Your task to perform on an android device: set default search engine in the chrome app Image 0: 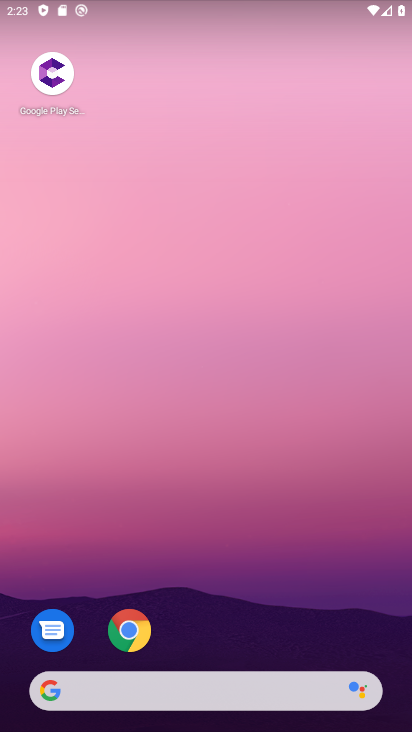
Step 0: drag from (263, 615) to (197, 188)
Your task to perform on an android device: set default search engine in the chrome app Image 1: 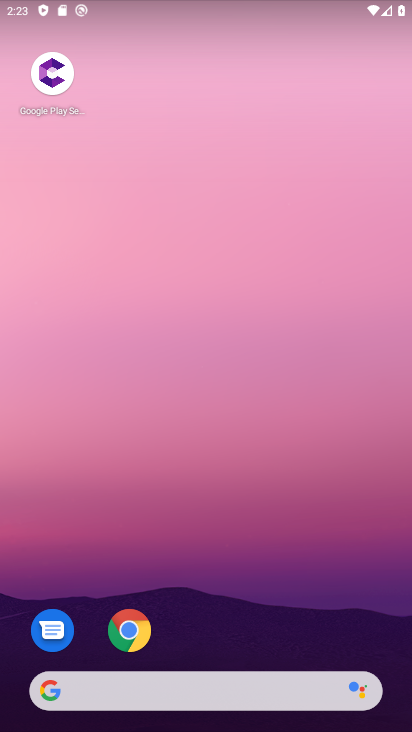
Step 1: drag from (217, 504) to (173, 144)
Your task to perform on an android device: set default search engine in the chrome app Image 2: 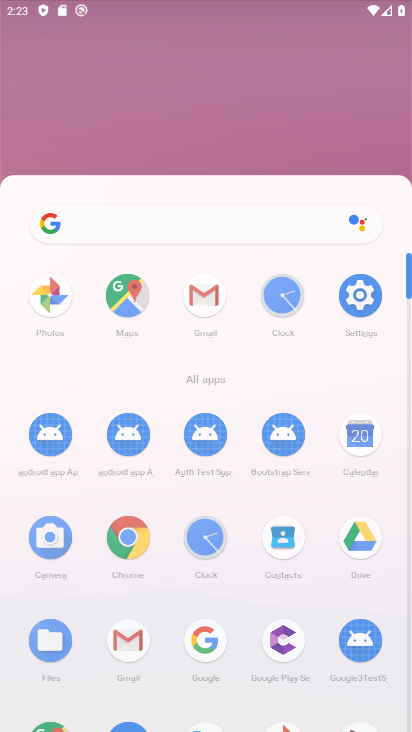
Step 2: drag from (231, 372) to (184, 111)
Your task to perform on an android device: set default search engine in the chrome app Image 3: 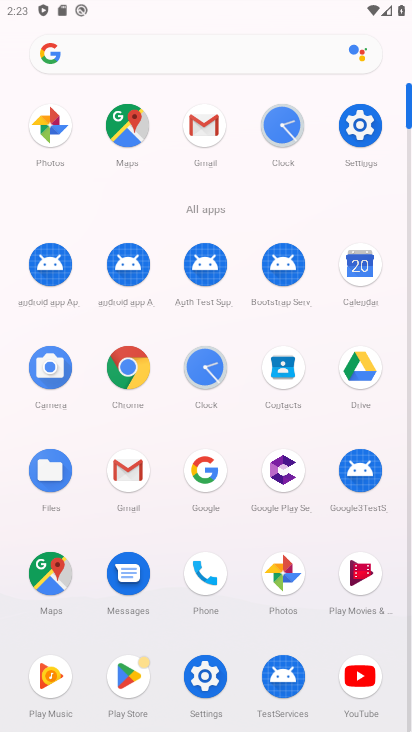
Step 3: drag from (219, 367) to (167, 121)
Your task to perform on an android device: set default search engine in the chrome app Image 4: 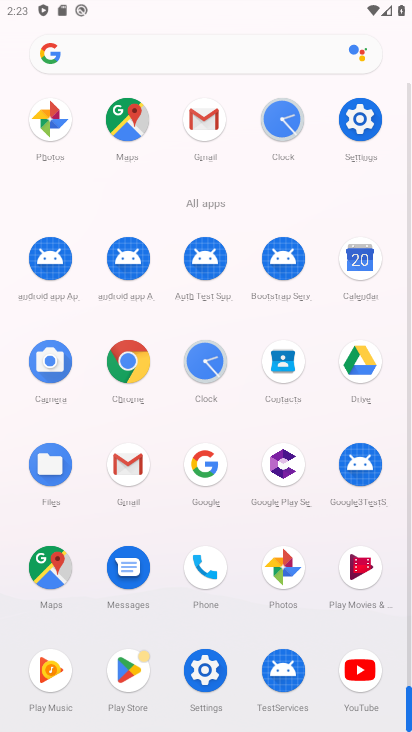
Step 4: click (129, 366)
Your task to perform on an android device: set default search engine in the chrome app Image 5: 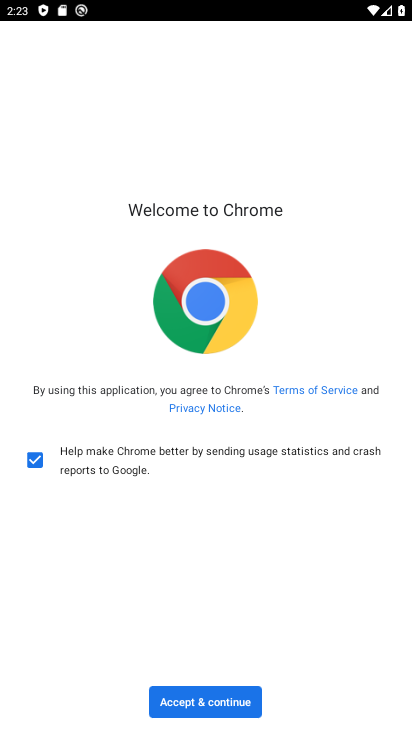
Step 5: click (211, 701)
Your task to perform on an android device: set default search engine in the chrome app Image 6: 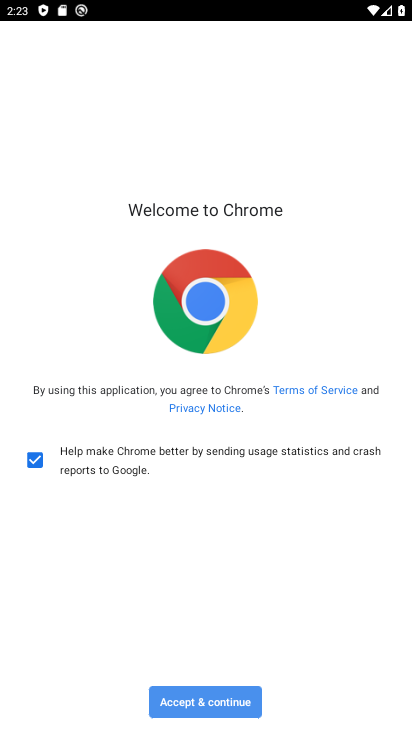
Step 6: click (210, 702)
Your task to perform on an android device: set default search engine in the chrome app Image 7: 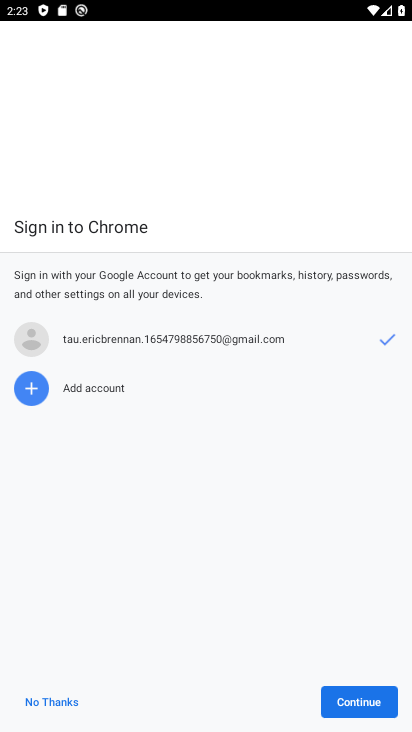
Step 7: click (210, 702)
Your task to perform on an android device: set default search engine in the chrome app Image 8: 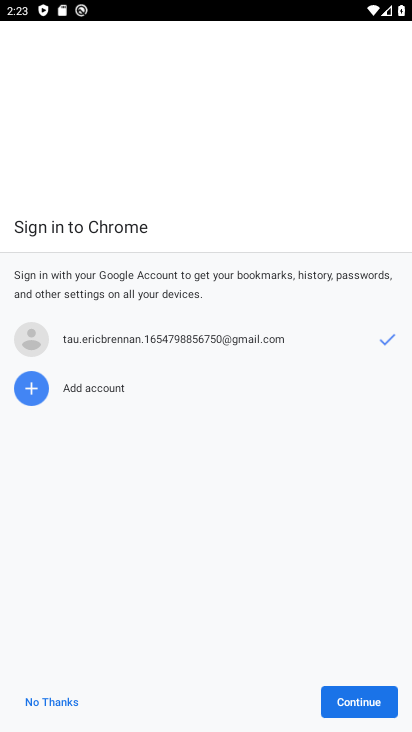
Step 8: click (210, 702)
Your task to perform on an android device: set default search engine in the chrome app Image 9: 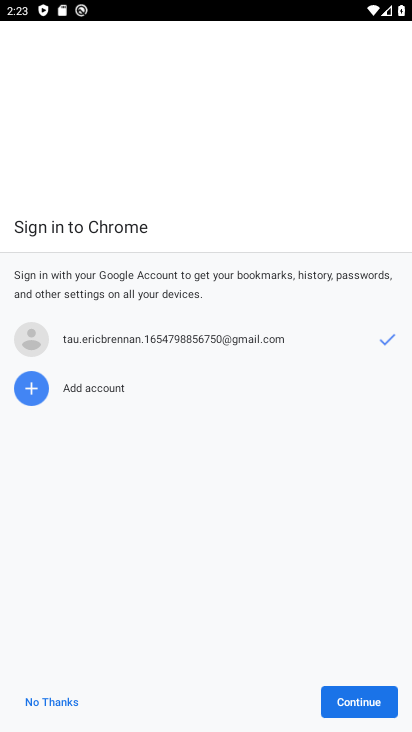
Step 9: click (354, 698)
Your task to perform on an android device: set default search engine in the chrome app Image 10: 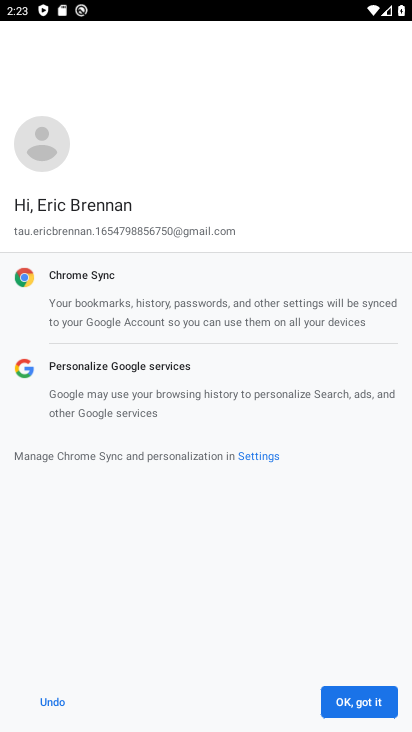
Step 10: click (69, 703)
Your task to perform on an android device: set default search engine in the chrome app Image 11: 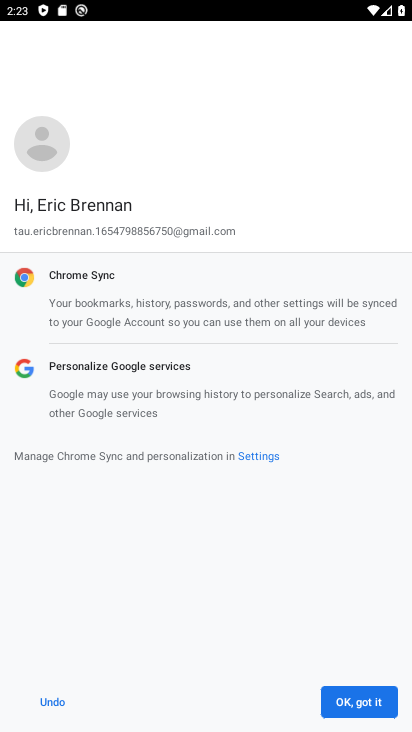
Step 11: click (69, 703)
Your task to perform on an android device: set default search engine in the chrome app Image 12: 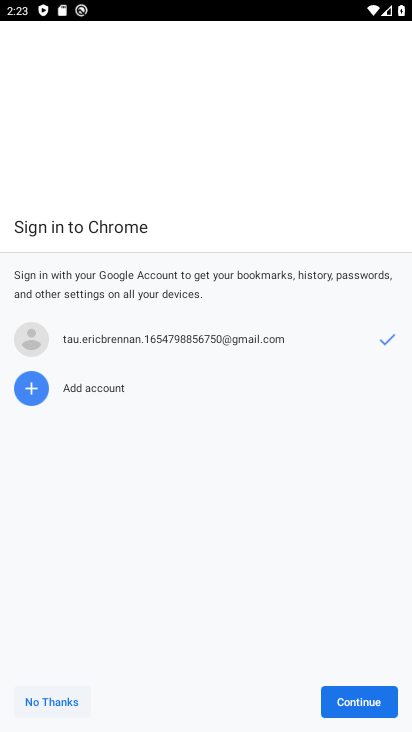
Step 12: click (58, 701)
Your task to perform on an android device: set default search engine in the chrome app Image 13: 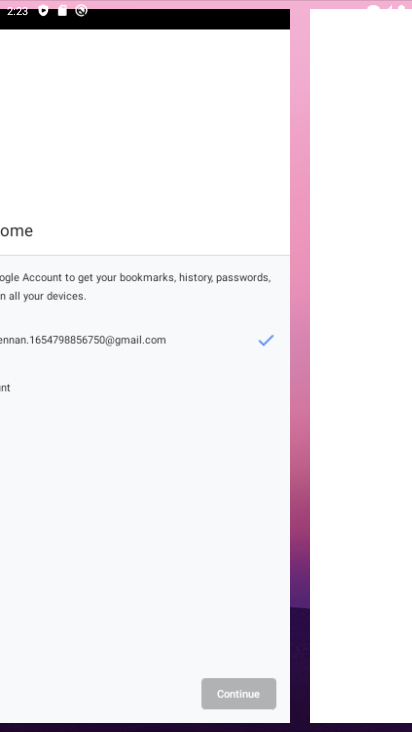
Step 13: click (58, 701)
Your task to perform on an android device: set default search engine in the chrome app Image 14: 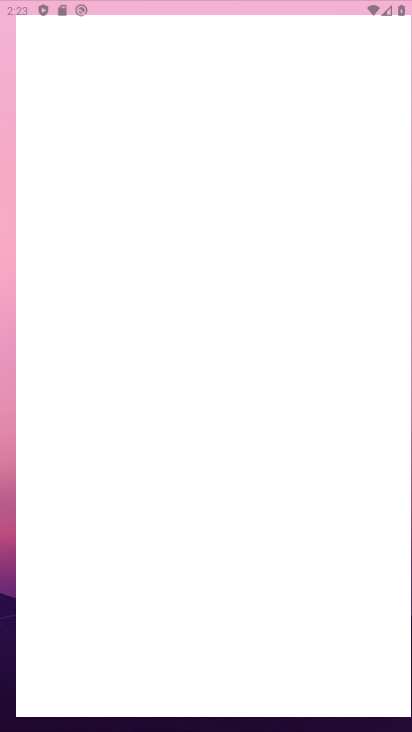
Step 14: click (58, 701)
Your task to perform on an android device: set default search engine in the chrome app Image 15: 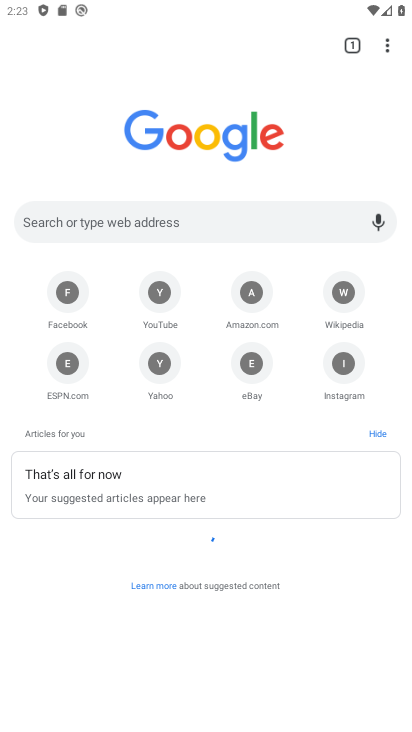
Step 15: drag from (385, 50) to (217, 378)
Your task to perform on an android device: set default search engine in the chrome app Image 16: 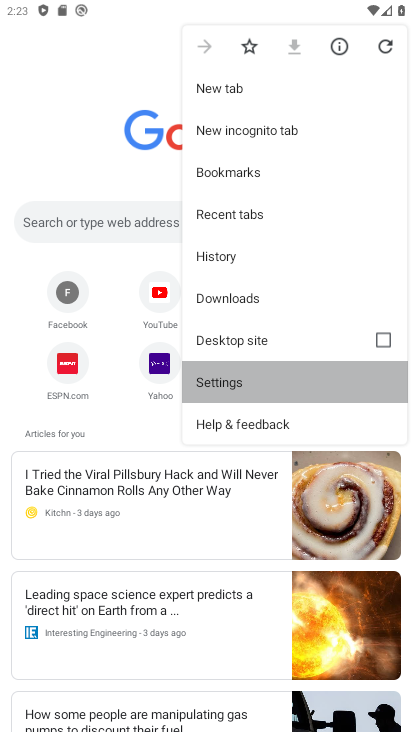
Step 16: click (217, 378)
Your task to perform on an android device: set default search engine in the chrome app Image 17: 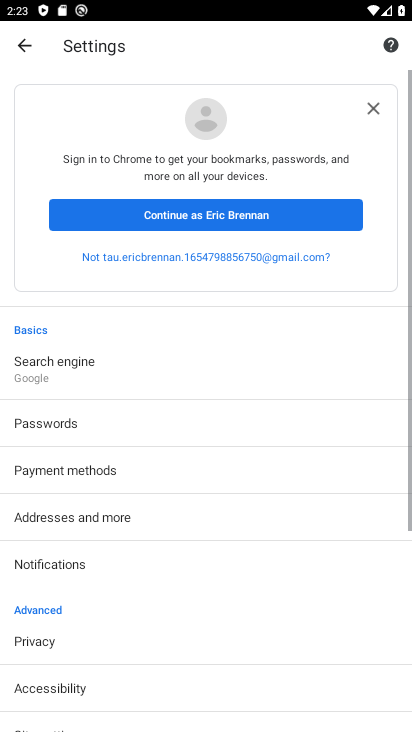
Step 17: click (54, 338)
Your task to perform on an android device: set default search engine in the chrome app Image 18: 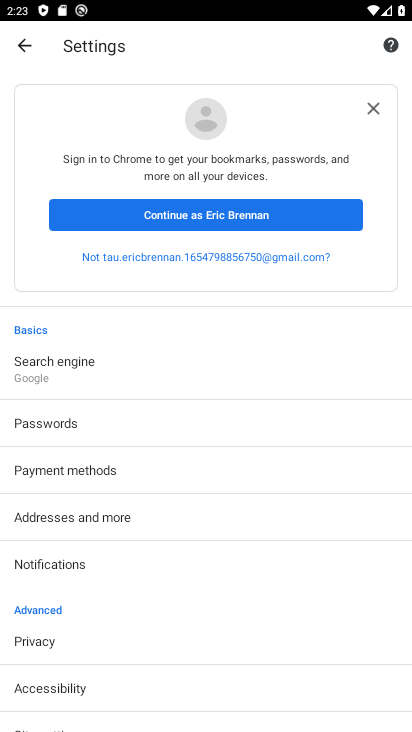
Step 18: click (44, 365)
Your task to perform on an android device: set default search engine in the chrome app Image 19: 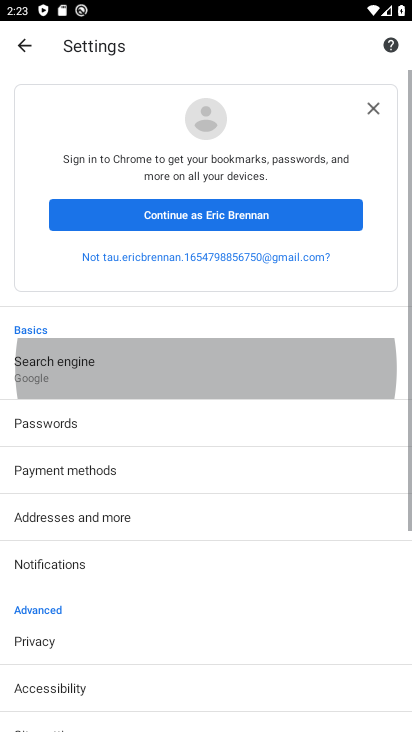
Step 19: click (46, 365)
Your task to perform on an android device: set default search engine in the chrome app Image 20: 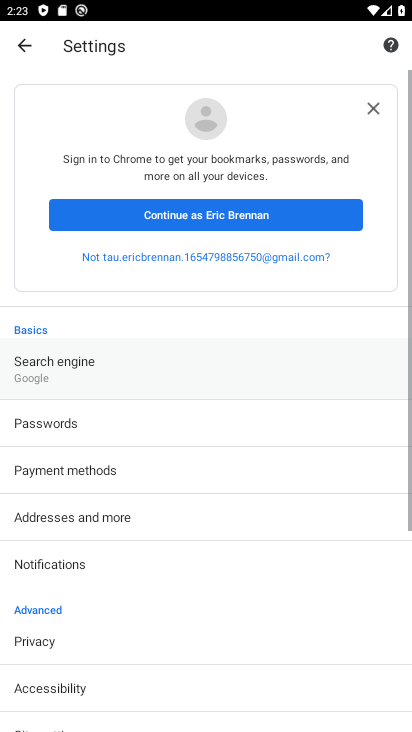
Step 20: click (50, 368)
Your task to perform on an android device: set default search engine in the chrome app Image 21: 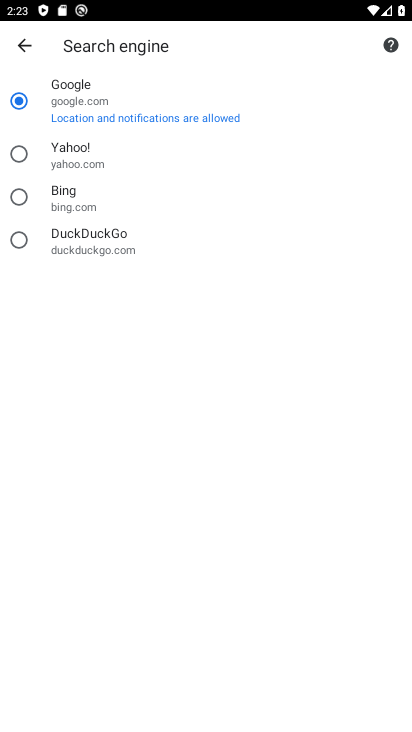
Step 21: click (20, 149)
Your task to perform on an android device: set default search engine in the chrome app Image 22: 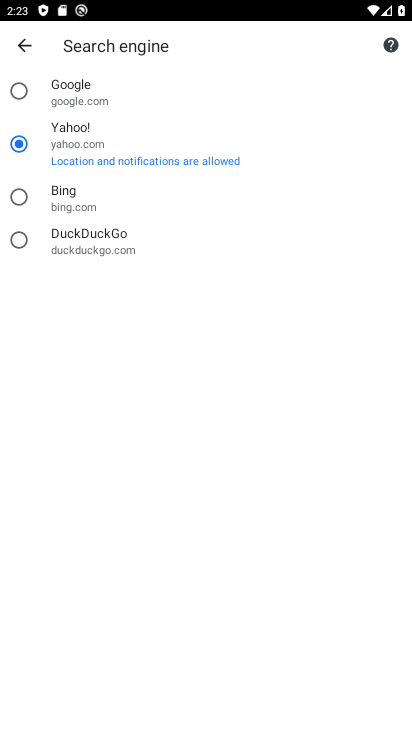
Step 22: task complete